Your task to perform on an android device: Open CNN.com Image 0: 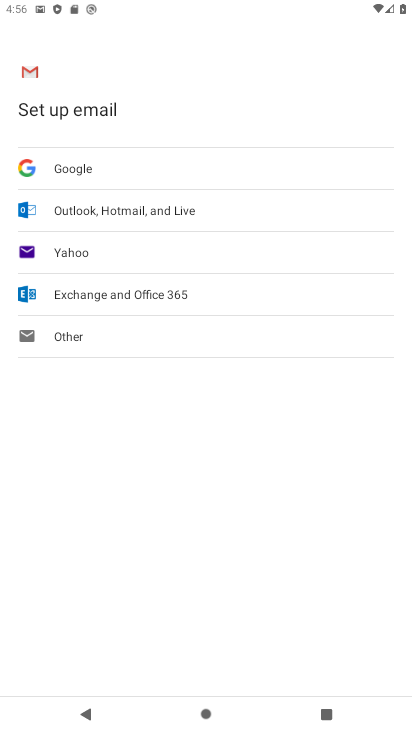
Step 0: press home button
Your task to perform on an android device: Open CNN.com Image 1: 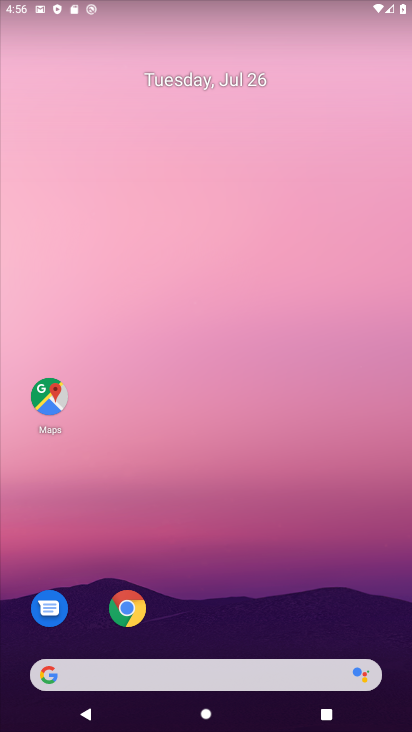
Step 1: click (47, 683)
Your task to perform on an android device: Open CNN.com Image 2: 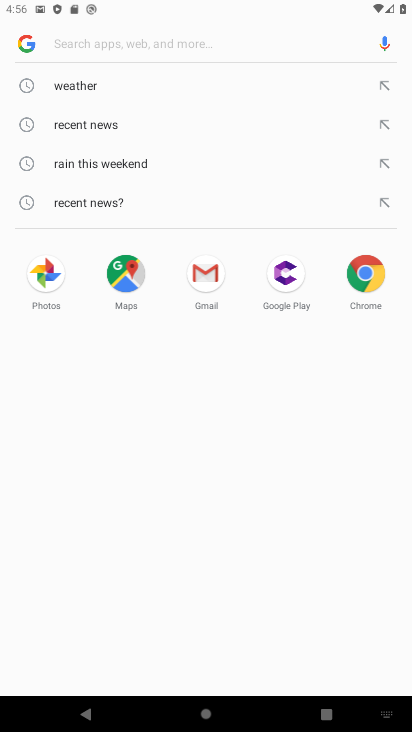
Step 2: type "CNN.com"
Your task to perform on an android device: Open CNN.com Image 3: 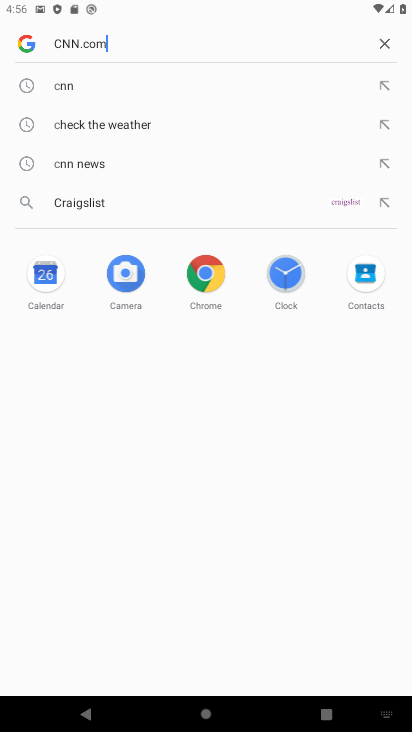
Step 3: press enter
Your task to perform on an android device: Open CNN.com Image 4: 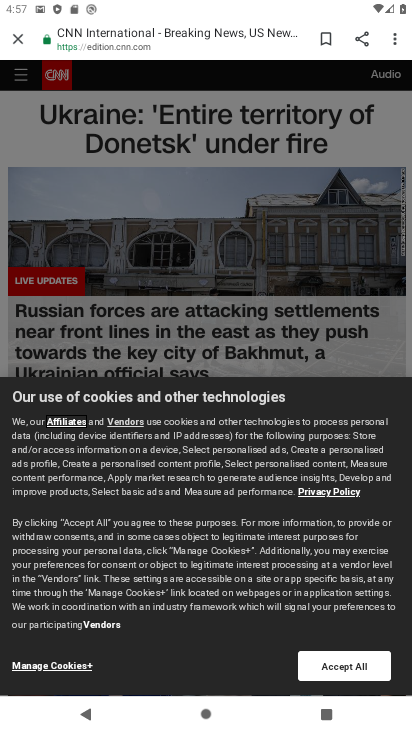
Step 4: task complete